Your task to perform on an android device: uninstall "Venmo" Image 0: 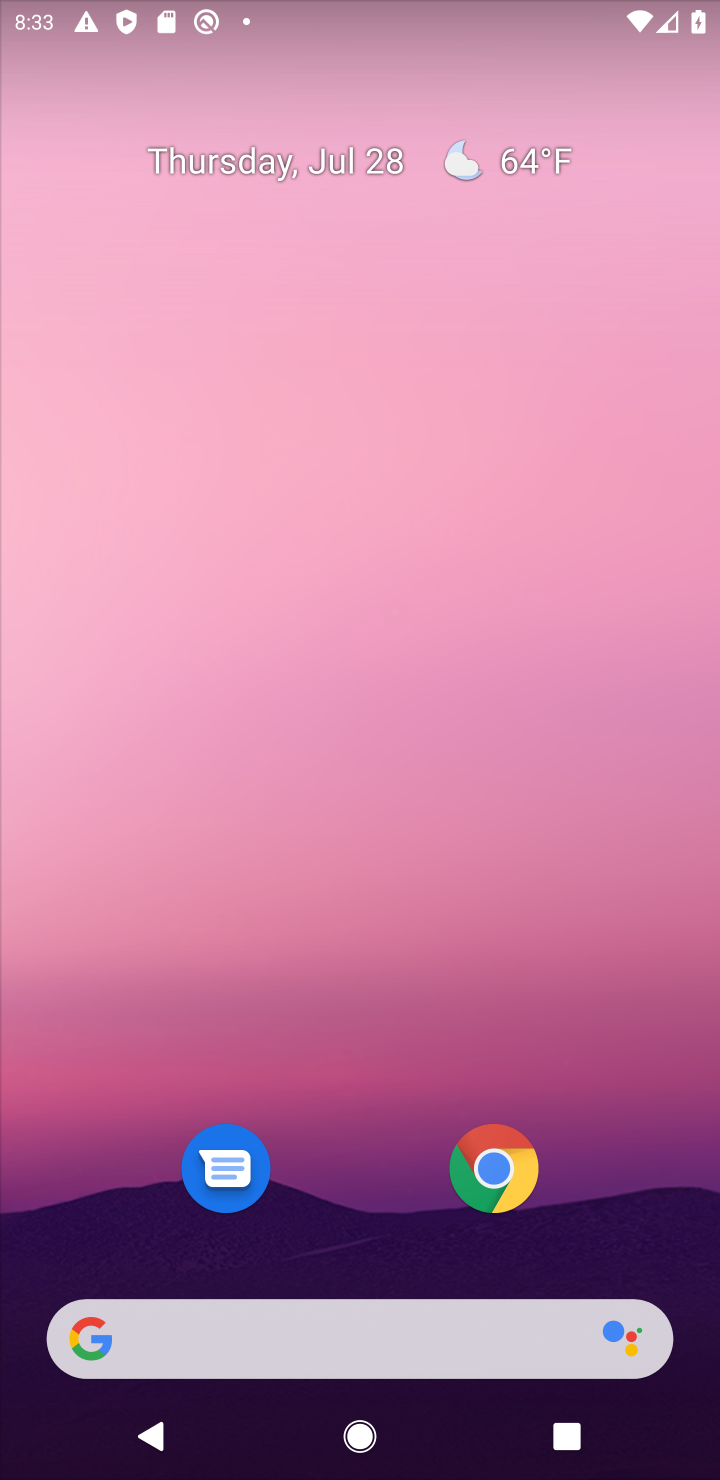
Step 0: drag from (475, 1071) to (543, 12)
Your task to perform on an android device: uninstall "Venmo" Image 1: 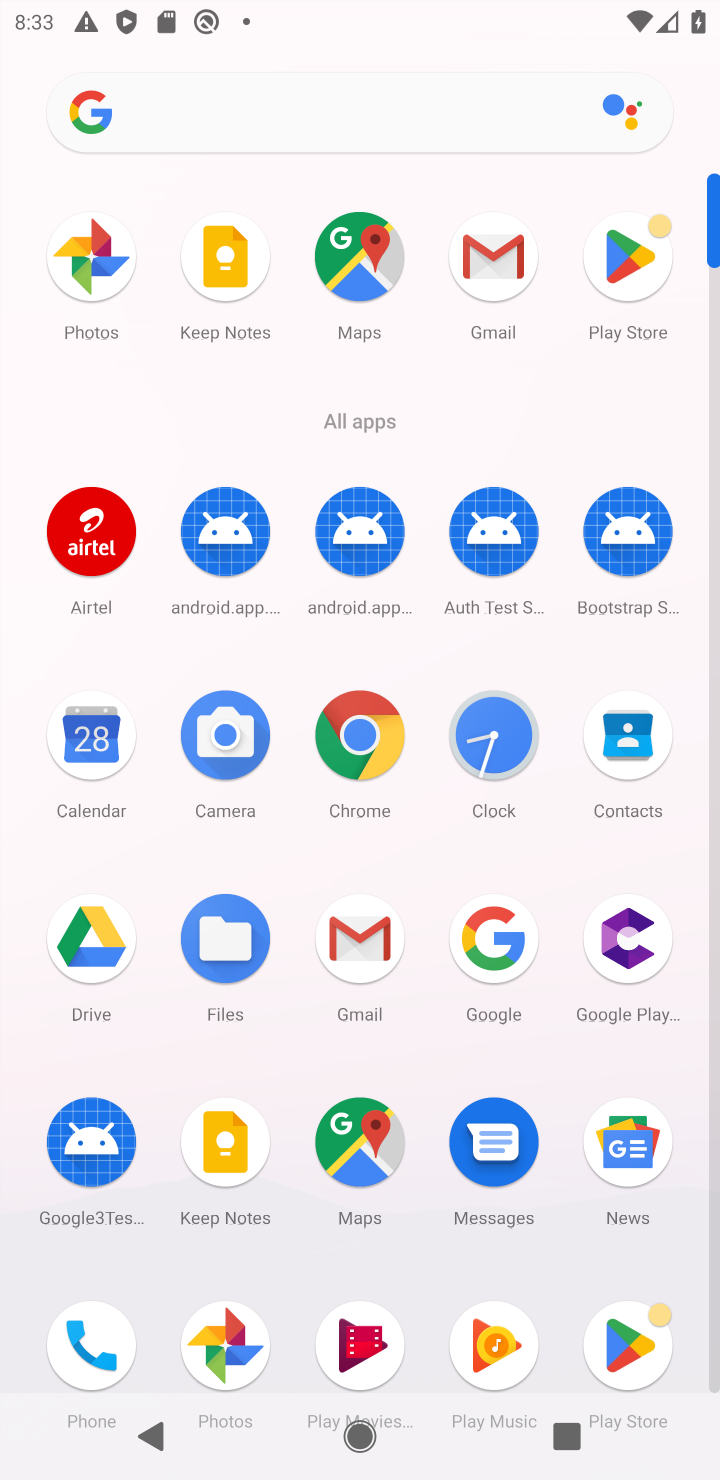
Step 1: click (631, 262)
Your task to perform on an android device: uninstall "Venmo" Image 2: 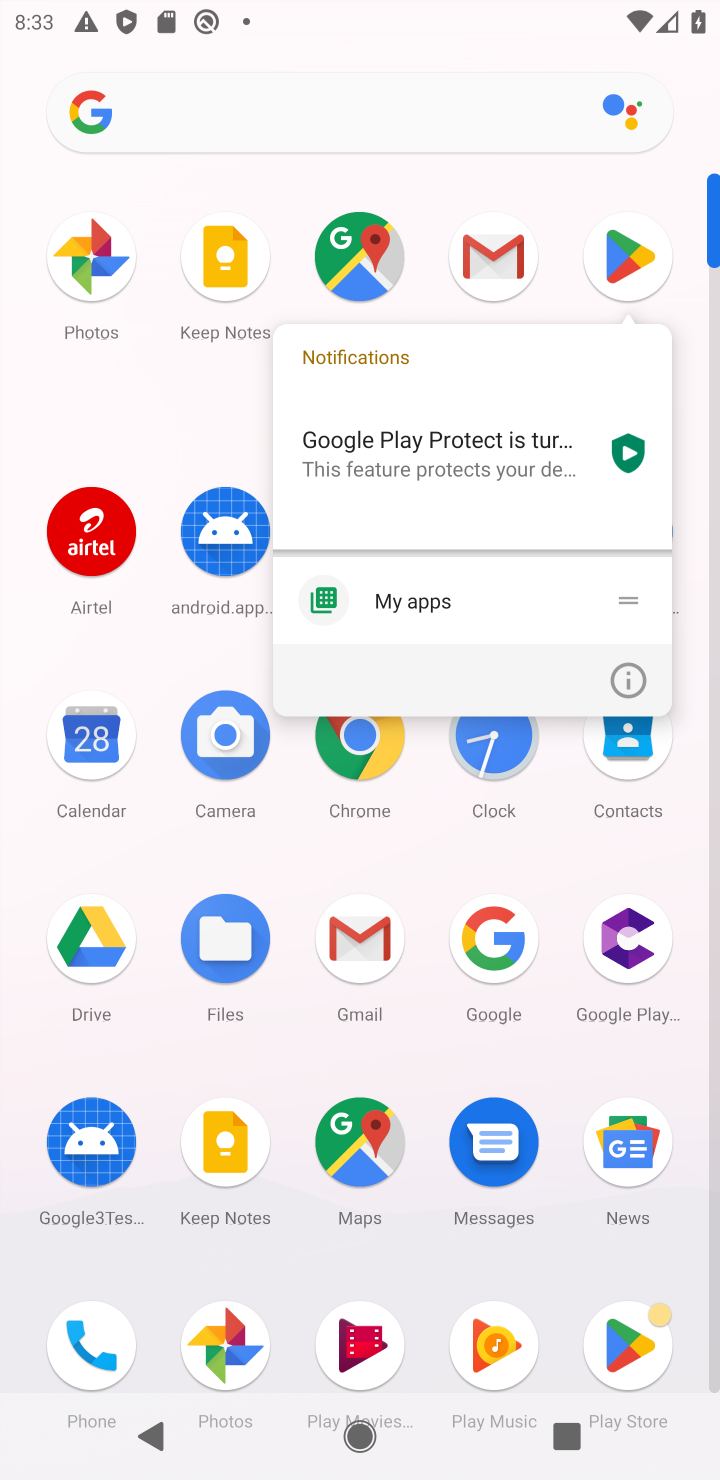
Step 2: click (631, 262)
Your task to perform on an android device: uninstall "Venmo" Image 3: 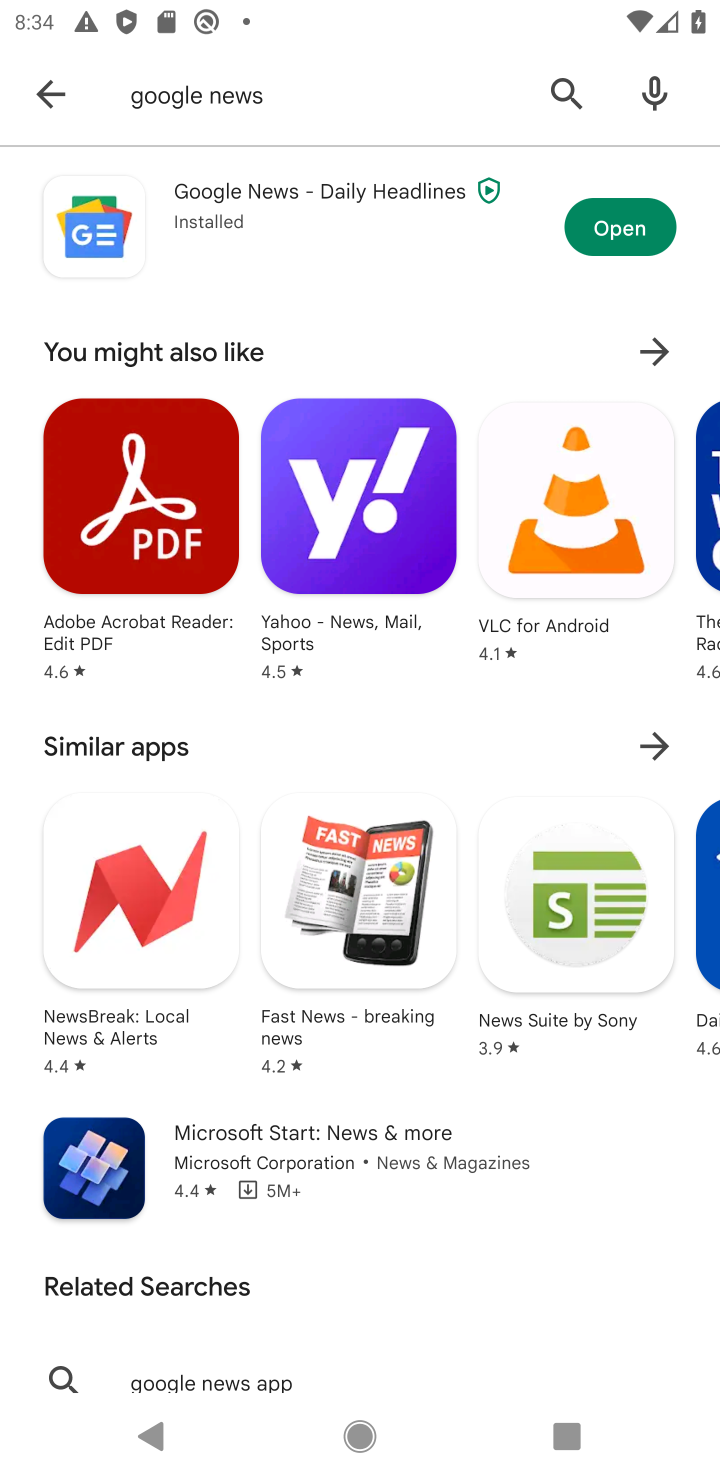
Step 3: click (555, 86)
Your task to perform on an android device: uninstall "Venmo" Image 4: 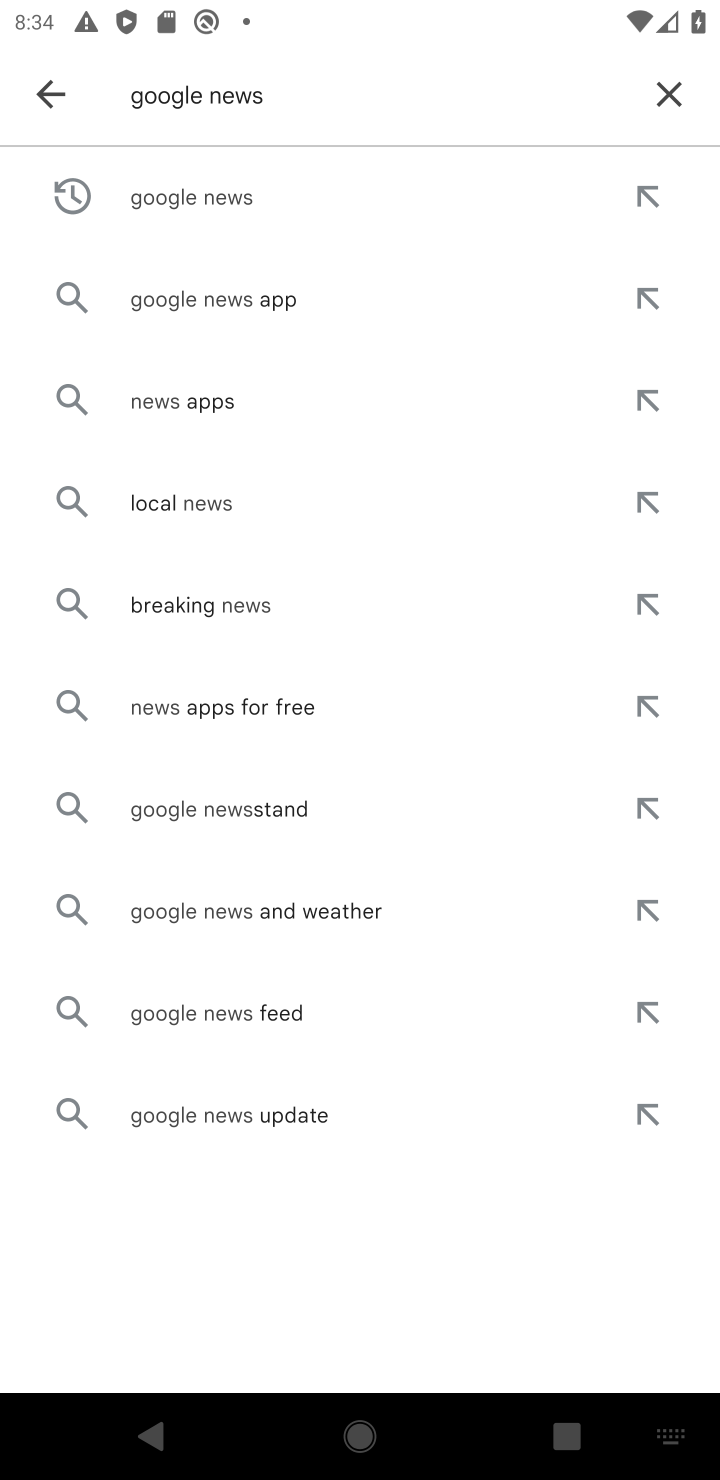
Step 4: click (654, 92)
Your task to perform on an android device: uninstall "Venmo" Image 5: 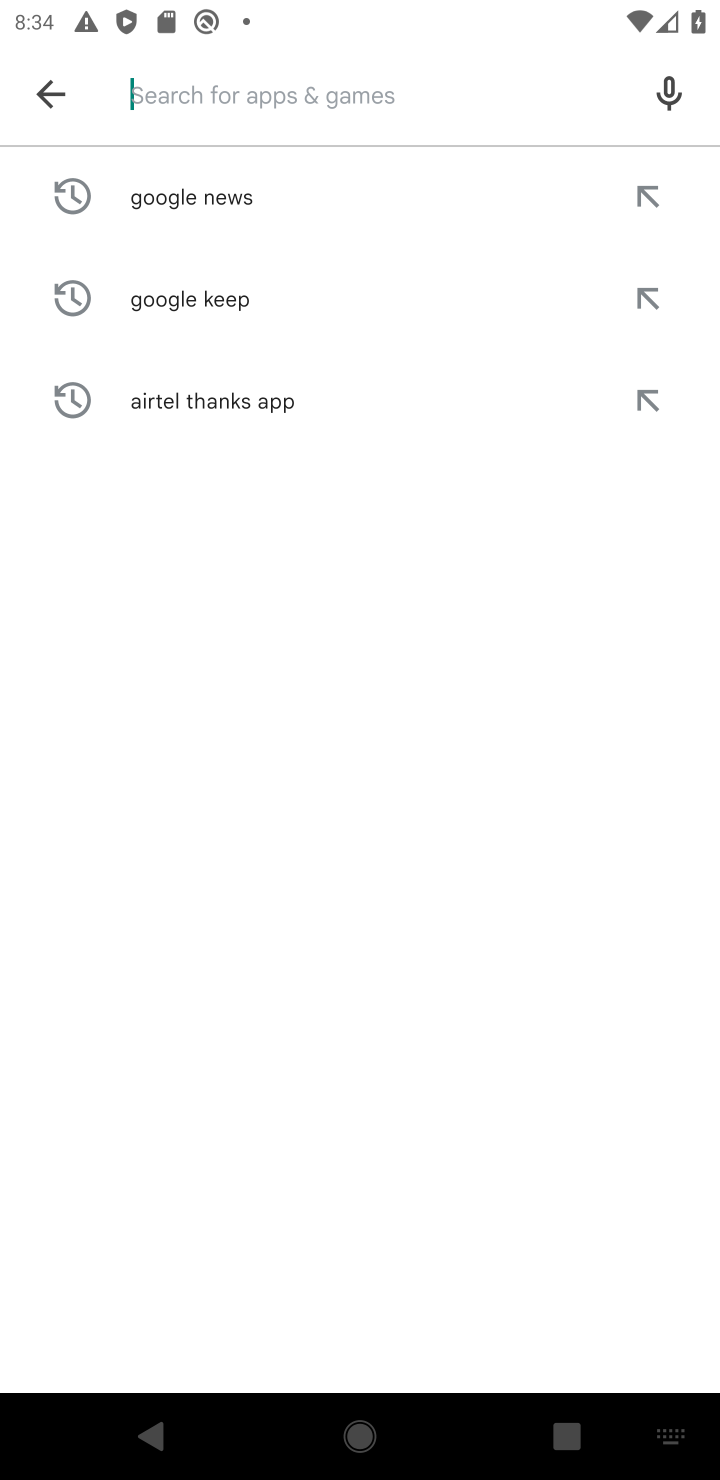
Step 5: type "venmo"
Your task to perform on an android device: uninstall "Venmo" Image 6: 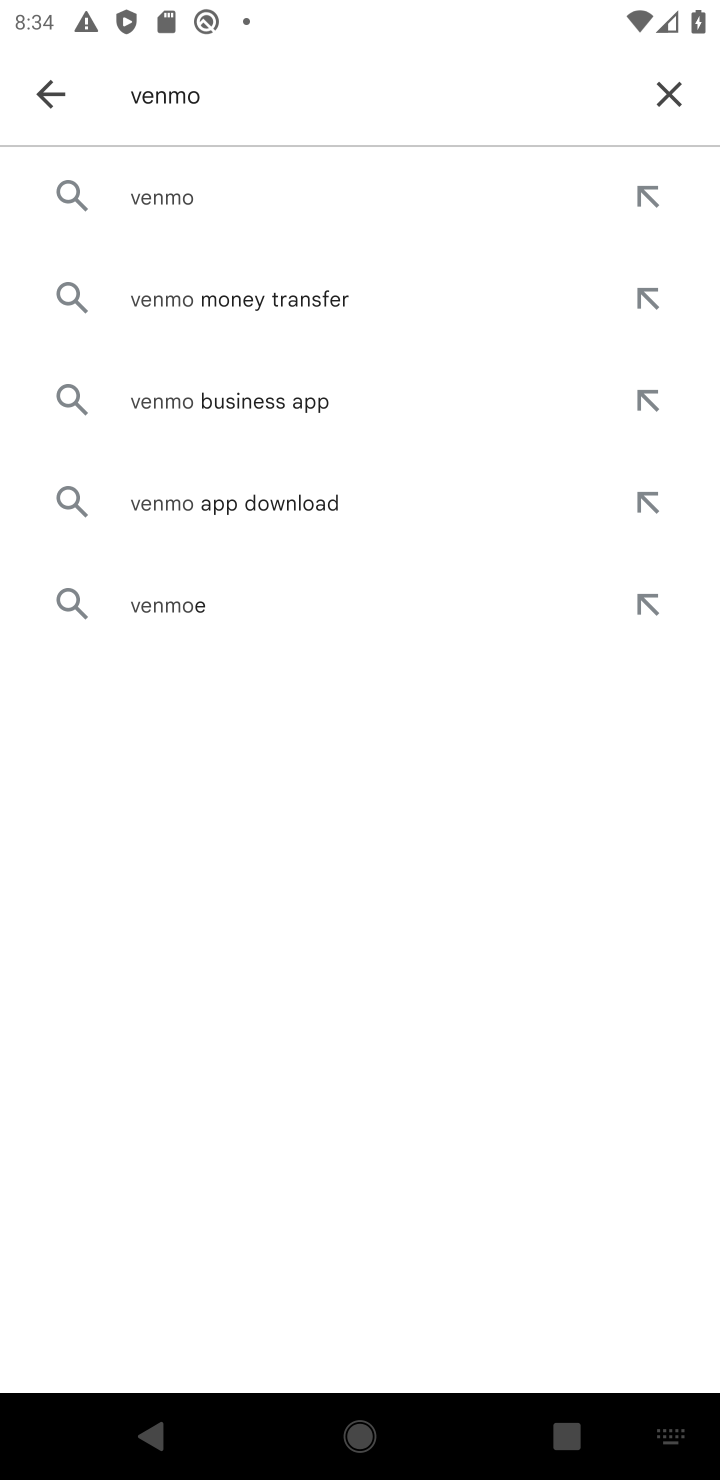
Step 6: click (256, 205)
Your task to perform on an android device: uninstall "Venmo" Image 7: 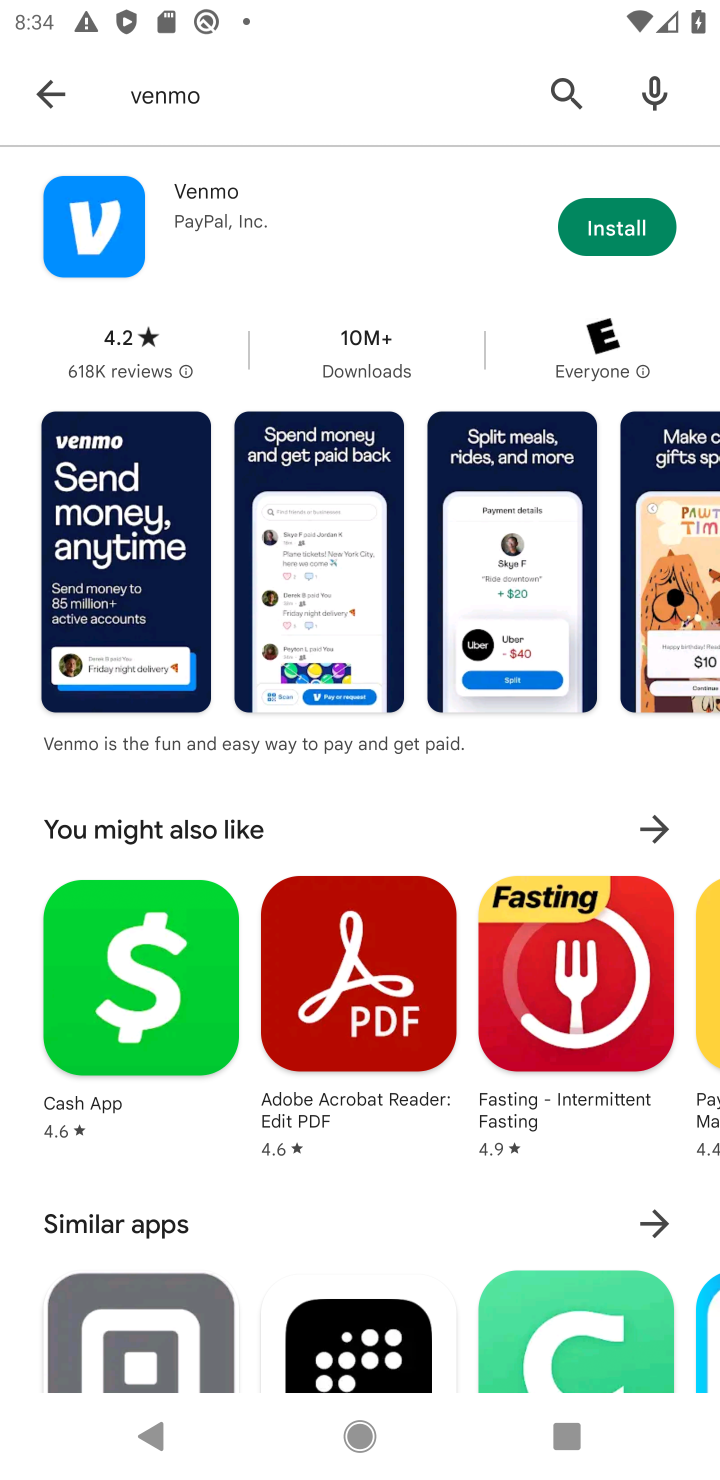
Step 7: task complete